Your task to perform on an android device: Search for Mexican restaurants on Maps Image 0: 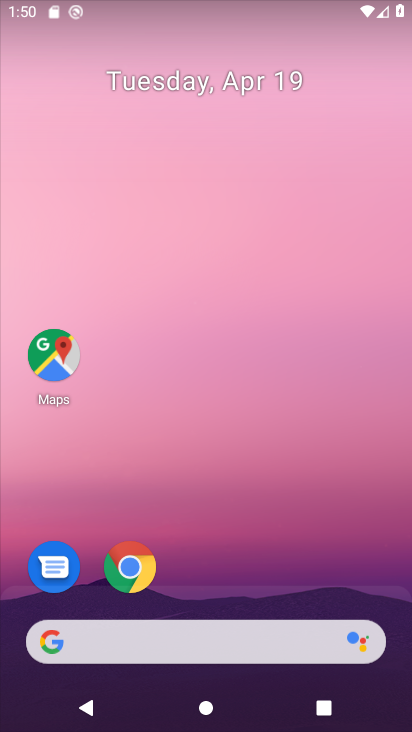
Step 0: click (49, 357)
Your task to perform on an android device: Search for Mexican restaurants on Maps Image 1: 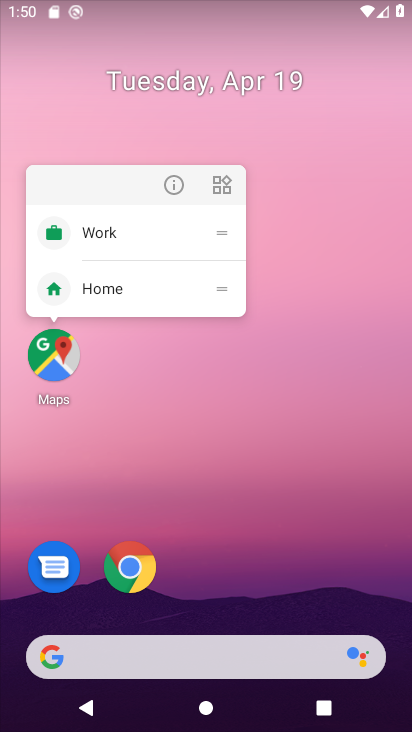
Step 1: click (32, 352)
Your task to perform on an android device: Search for Mexican restaurants on Maps Image 2: 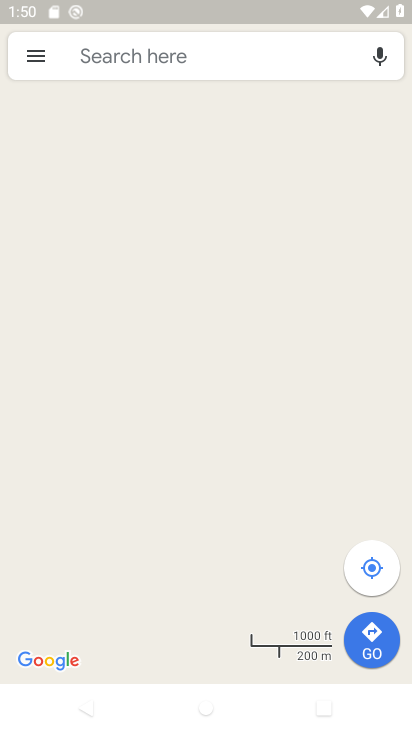
Step 2: click (173, 58)
Your task to perform on an android device: Search for Mexican restaurants on Maps Image 3: 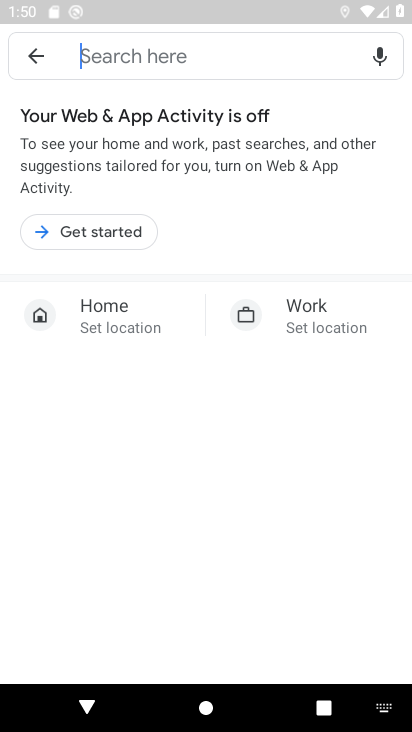
Step 3: click (35, 50)
Your task to perform on an android device: Search for Mexican restaurants on Maps Image 4: 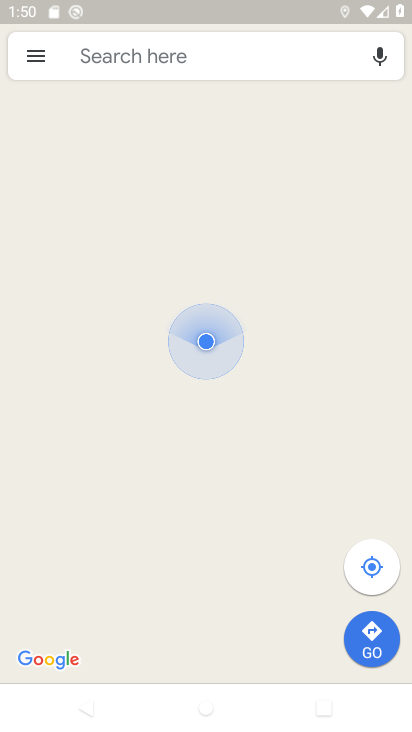
Step 4: click (118, 50)
Your task to perform on an android device: Search for Mexican restaurants on Maps Image 5: 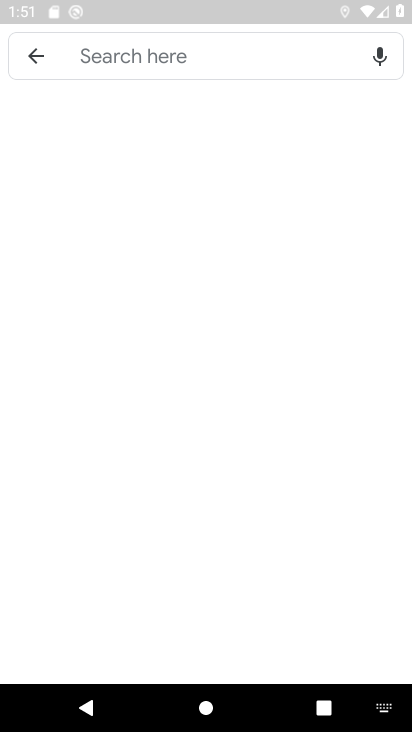
Step 5: click (171, 51)
Your task to perform on an android device: Search for Mexican restaurants on Maps Image 6: 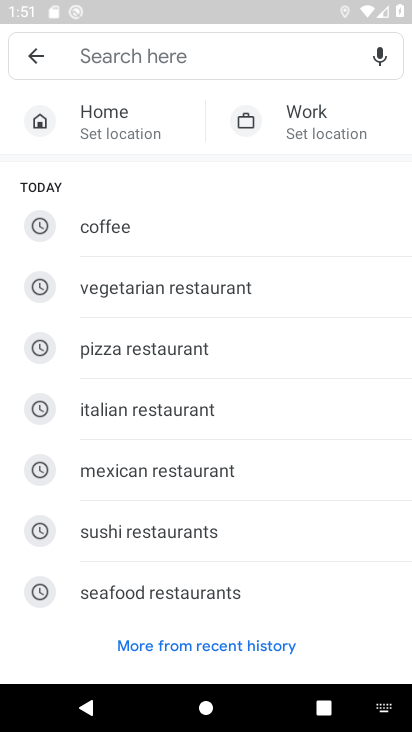
Step 6: click (192, 470)
Your task to perform on an android device: Search for Mexican restaurants on Maps Image 7: 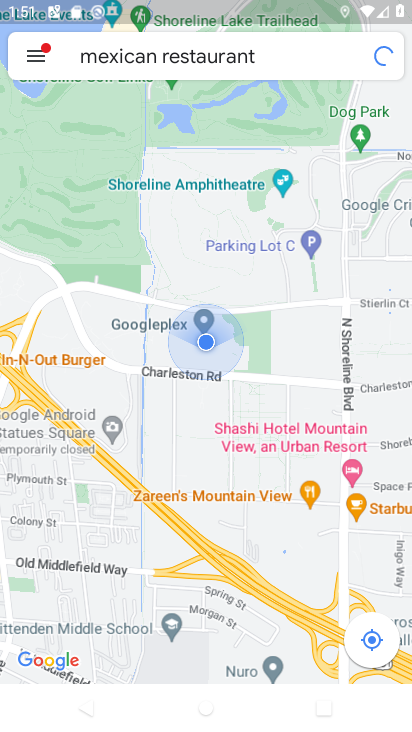
Step 7: task complete